Your task to perform on an android device: When is my next meeting? Image 0: 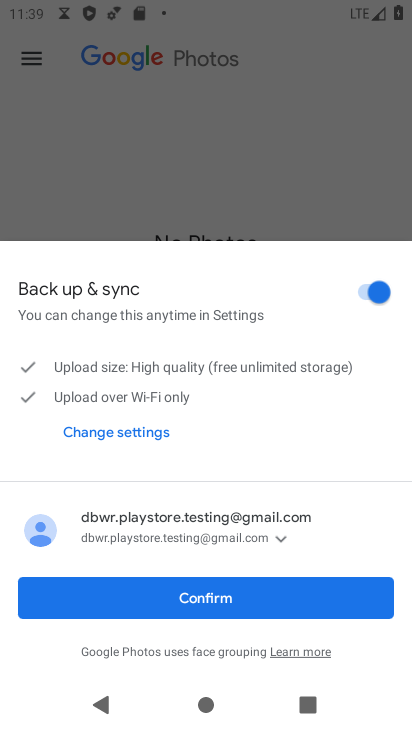
Step 0: press home button
Your task to perform on an android device: When is my next meeting? Image 1: 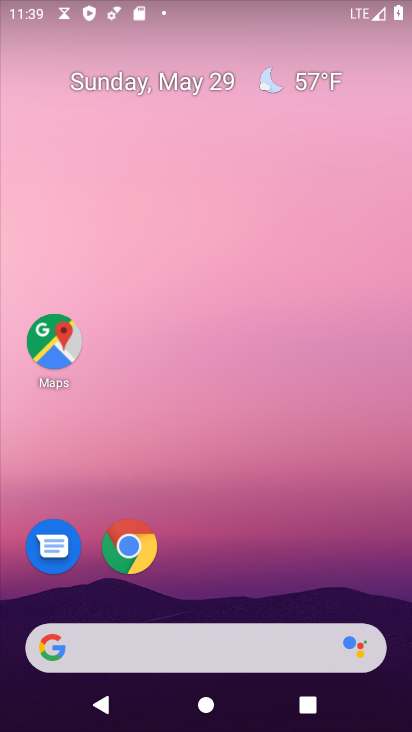
Step 1: click (296, 53)
Your task to perform on an android device: When is my next meeting? Image 2: 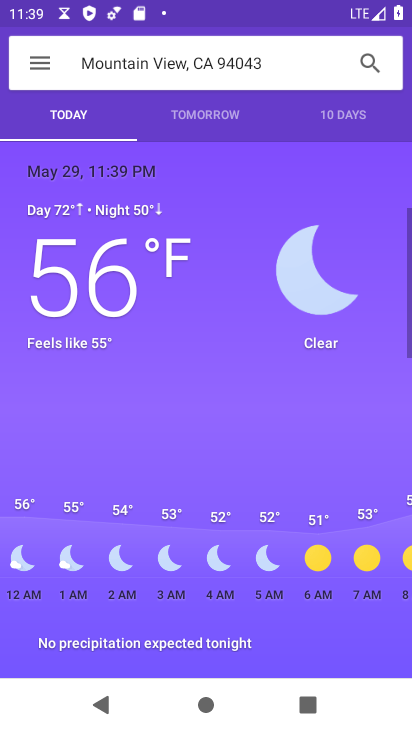
Step 2: press back button
Your task to perform on an android device: When is my next meeting? Image 3: 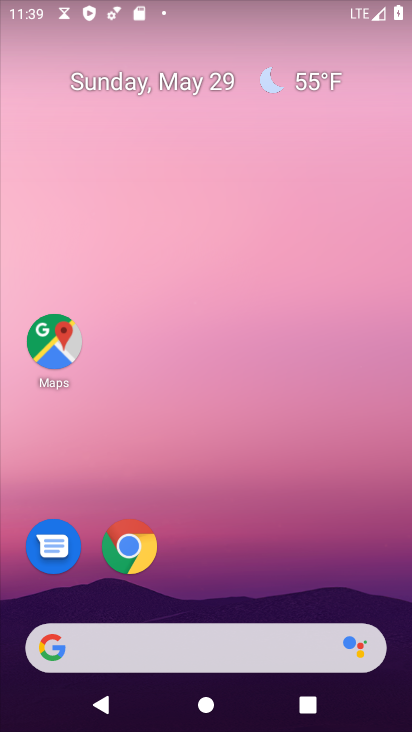
Step 3: drag from (205, 651) to (360, 47)
Your task to perform on an android device: When is my next meeting? Image 4: 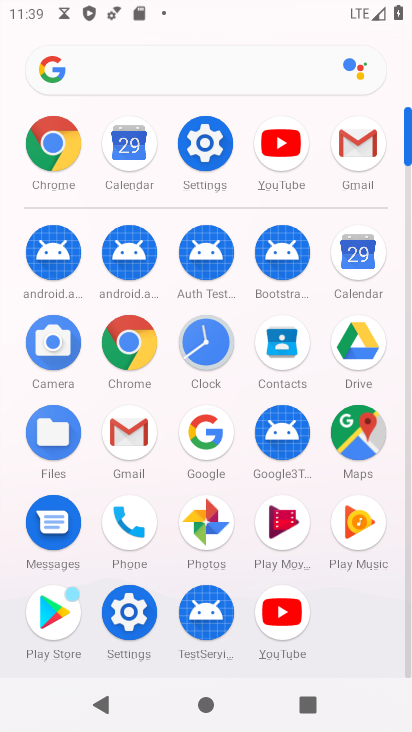
Step 4: click (358, 253)
Your task to perform on an android device: When is my next meeting? Image 5: 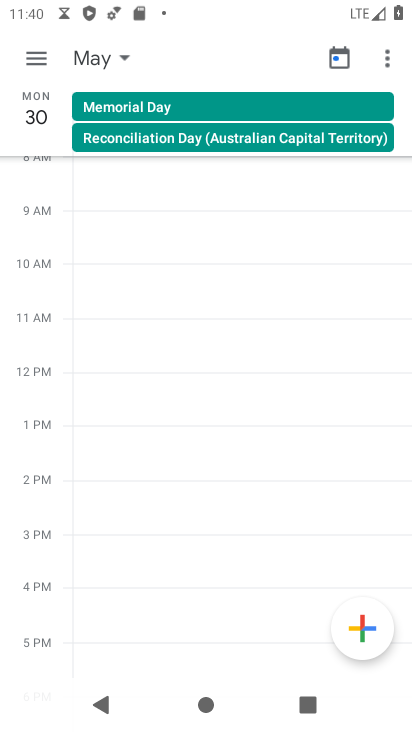
Step 5: click (96, 53)
Your task to perform on an android device: When is my next meeting? Image 6: 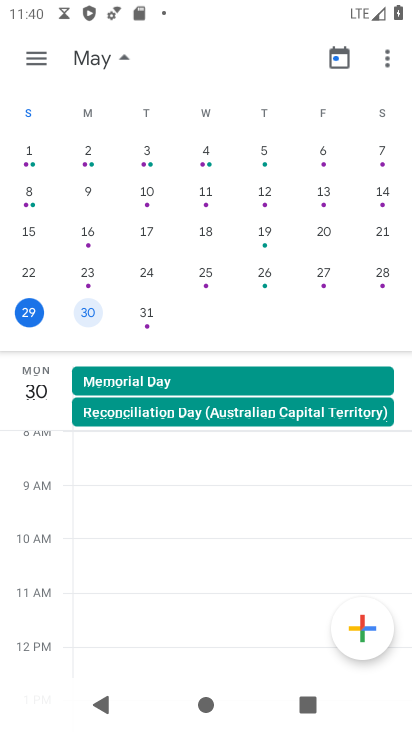
Step 6: click (36, 317)
Your task to perform on an android device: When is my next meeting? Image 7: 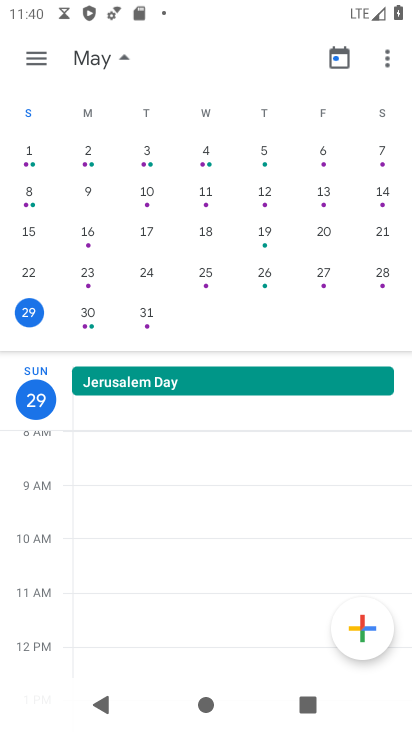
Step 7: click (37, 56)
Your task to perform on an android device: When is my next meeting? Image 8: 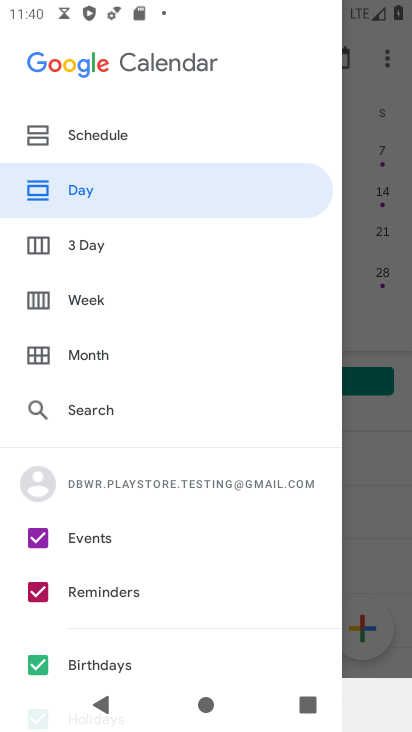
Step 8: click (93, 301)
Your task to perform on an android device: When is my next meeting? Image 9: 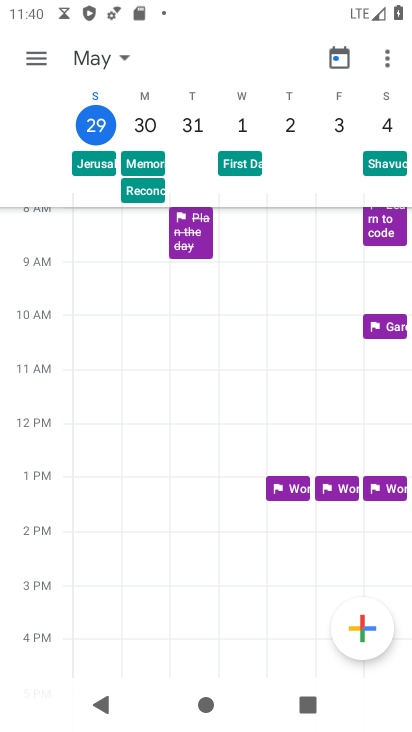
Step 9: click (33, 49)
Your task to perform on an android device: When is my next meeting? Image 10: 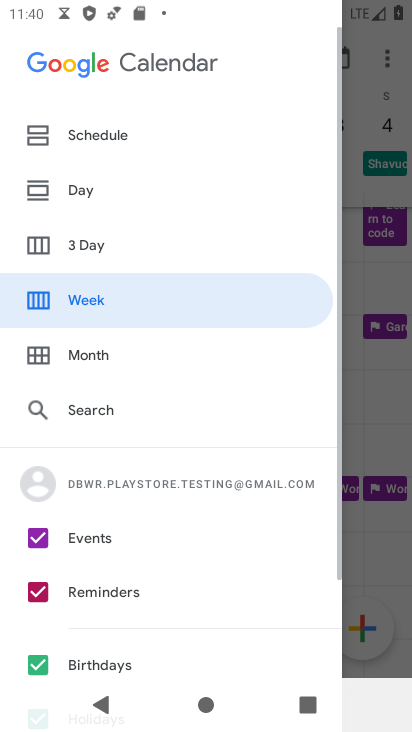
Step 10: click (117, 134)
Your task to perform on an android device: When is my next meeting? Image 11: 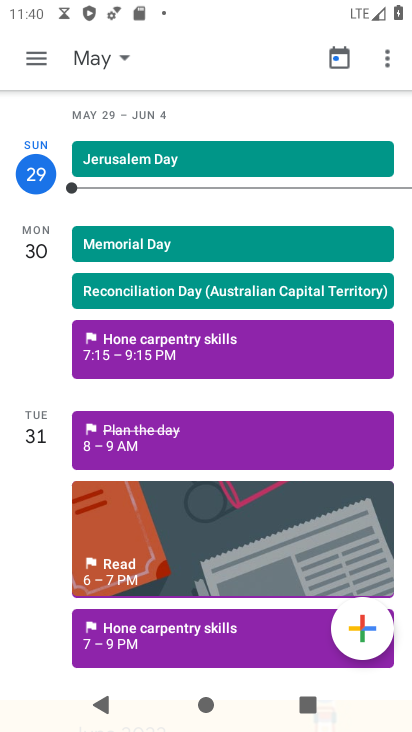
Step 11: task complete